Your task to perform on an android device: Go to ESPN.com Image 0: 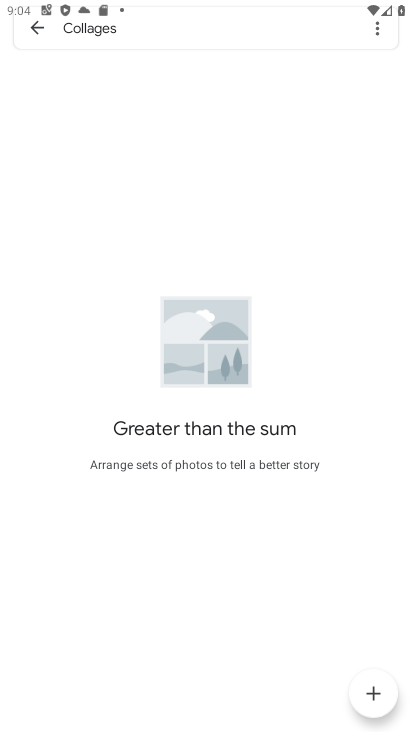
Step 0: press home button
Your task to perform on an android device: Go to ESPN.com Image 1: 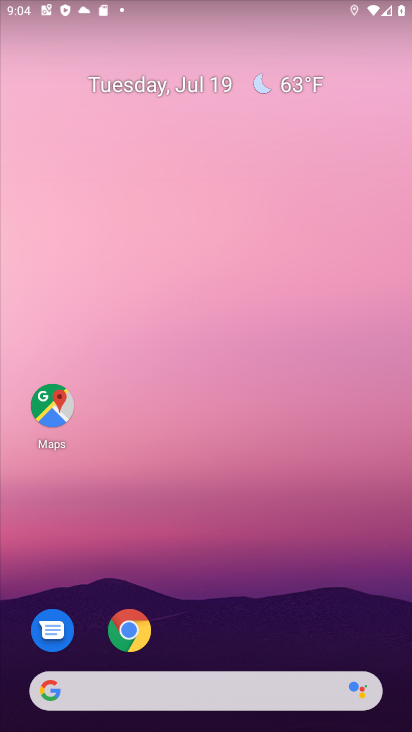
Step 1: click (130, 634)
Your task to perform on an android device: Go to ESPN.com Image 2: 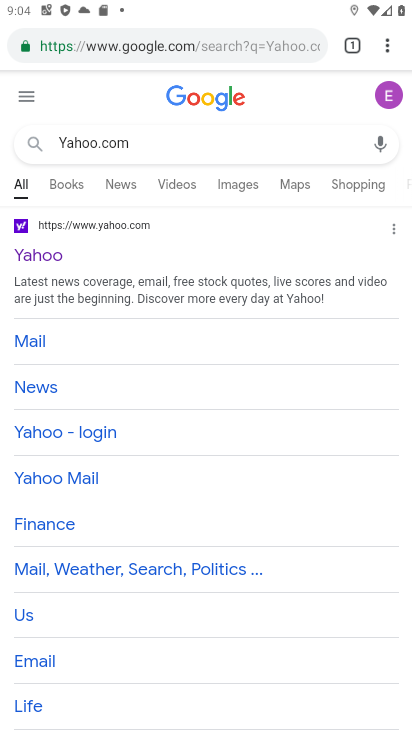
Step 2: click (218, 48)
Your task to perform on an android device: Go to ESPN.com Image 3: 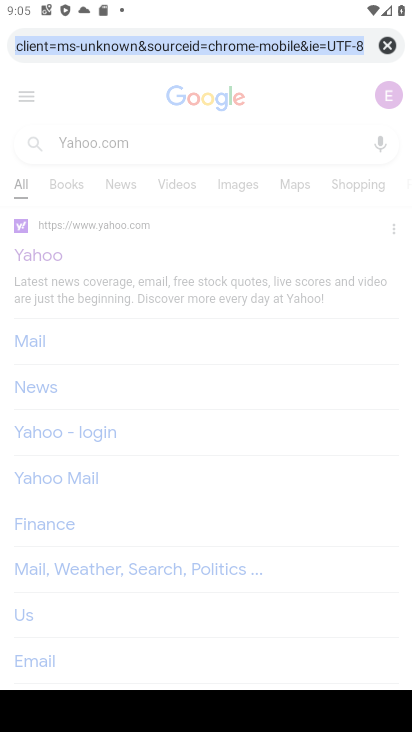
Step 3: type "ESPN.com"
Your task to perform on an android device: Go to ESPN.com Image 4: 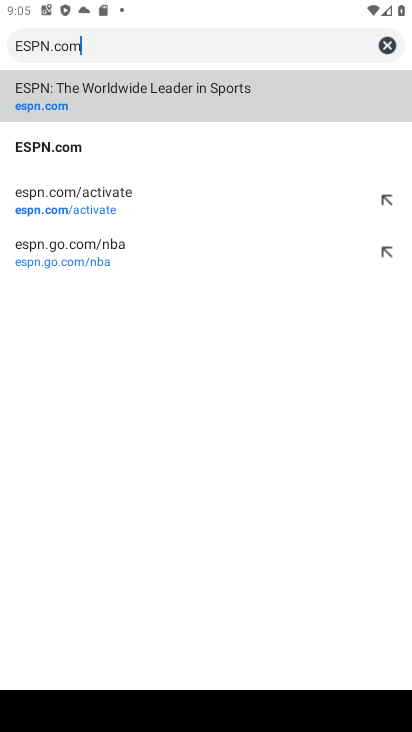
Step 4: click (64, 152)
Your task to perform on an android device: Go to ESPN.com Image 5: 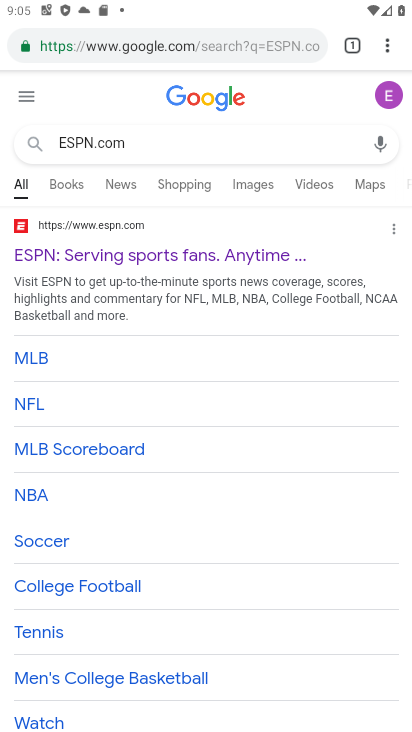
Step 5: click (96, 255)
Your task to perform on an android device: Go to ESPN.com Image 6: 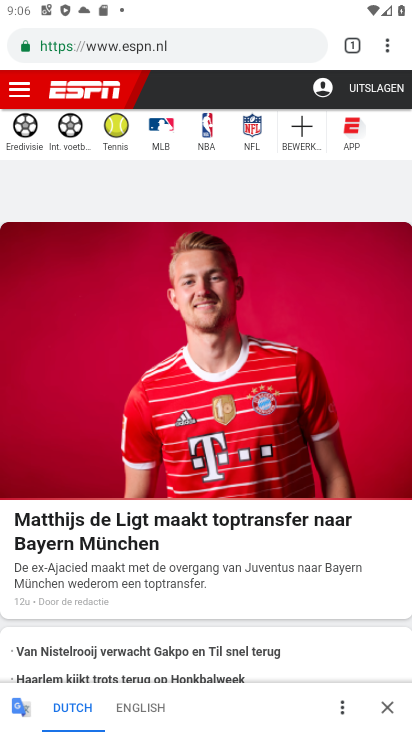
Step 6: task complete